Your task to perform on an android device: manage bookmarks in the chrome app Image 0: 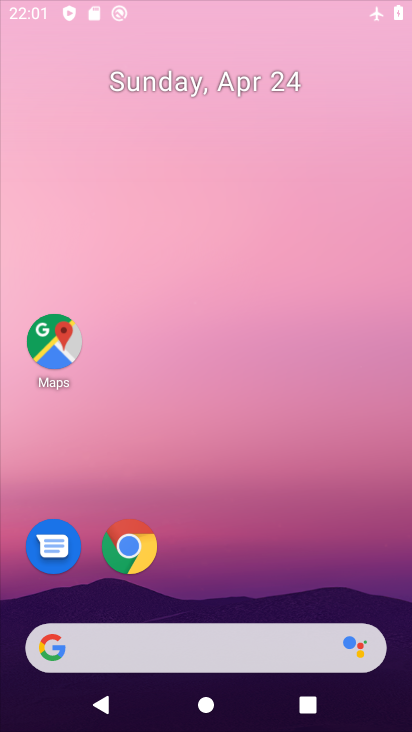
Step 0: drag from (236, 545) to (281, 188)
Your task to perform on an android device: manage bookmarks in the chrome app Image 1: 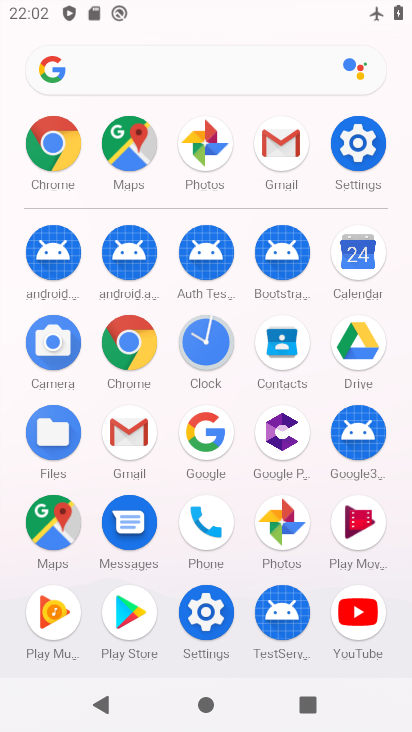
Step 1: click (360, 609)
Your task to perform on an android device: manage bookmarks in the chrome app Image 2: 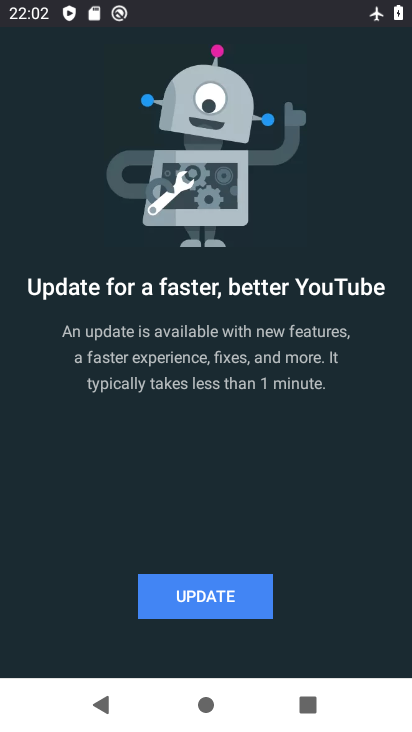
Step 2: press back button
Your task to perform on an android device: manage bookmarks in the chrome app Image 3: 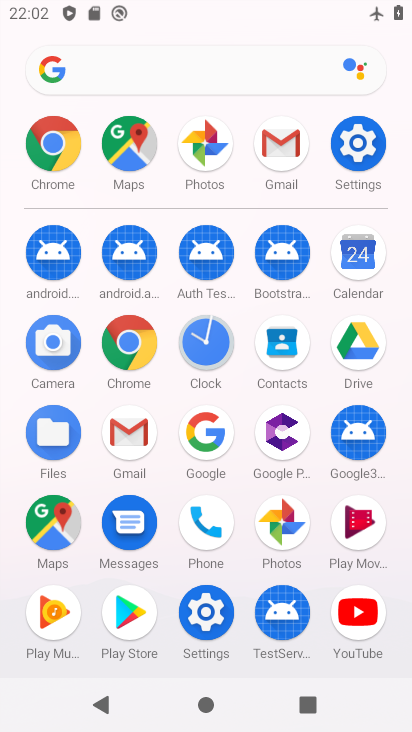
Step 3: click (129, 341)
Your task to perform on an android device: manage bookmarks in the chrome app Image 4: 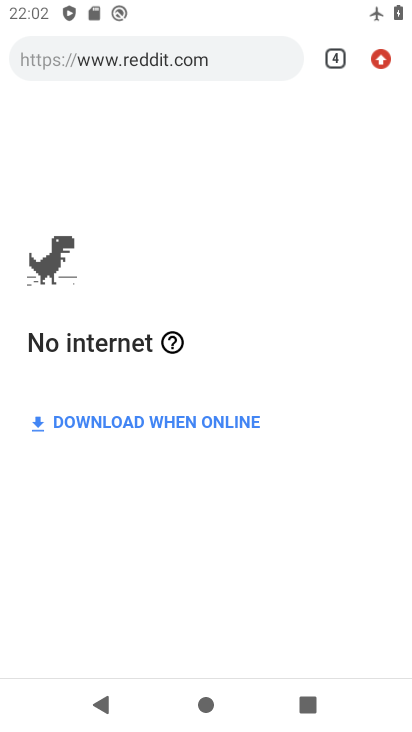
Step 4: click (389, 51)
Your task to perform on an android device: manage bookmarks in the chrome app Image 5: 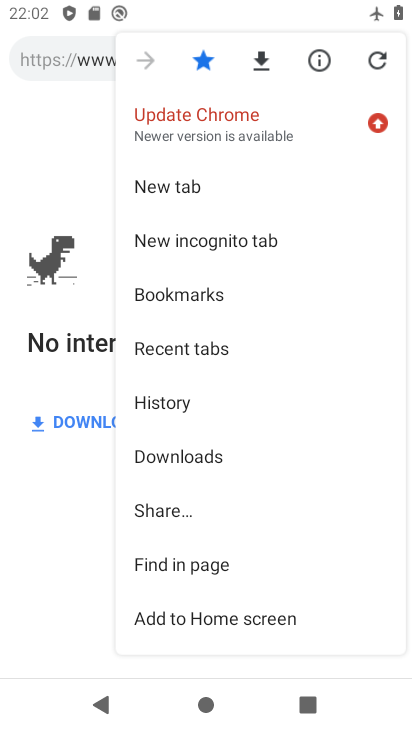
Step 5: click (212, 297)
Your task to perform on an android device: manage bookmarks in the chrome app Image 6: 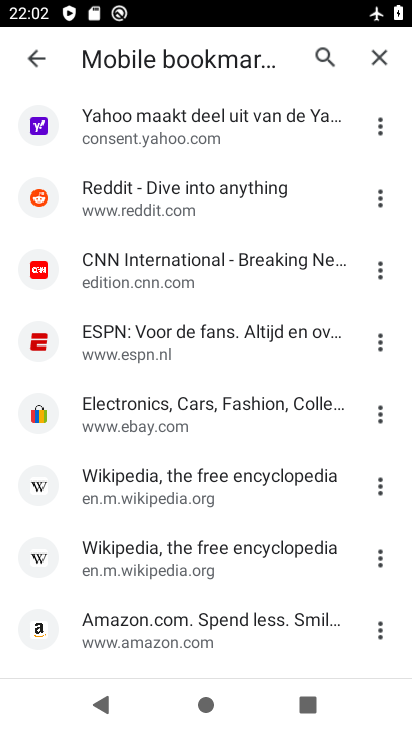
Step 6: click (86, 262)
Your task to perform on an android device: manage bookmarks in the chrome app Image 7: 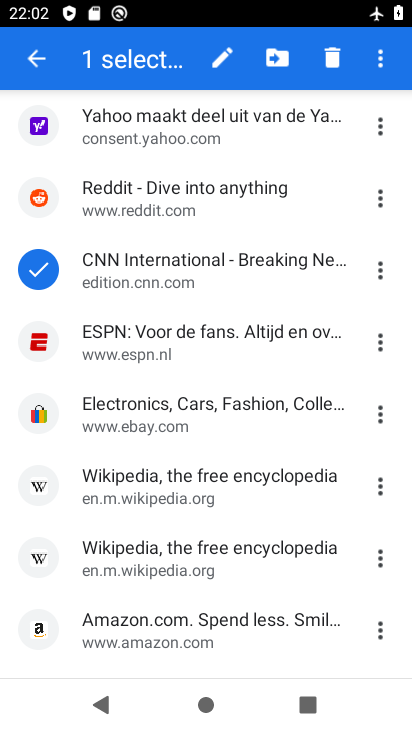
Step 7: click (266, 63)
Your task to perform on an android device: manage bookmarks in the chrome app Image 8: 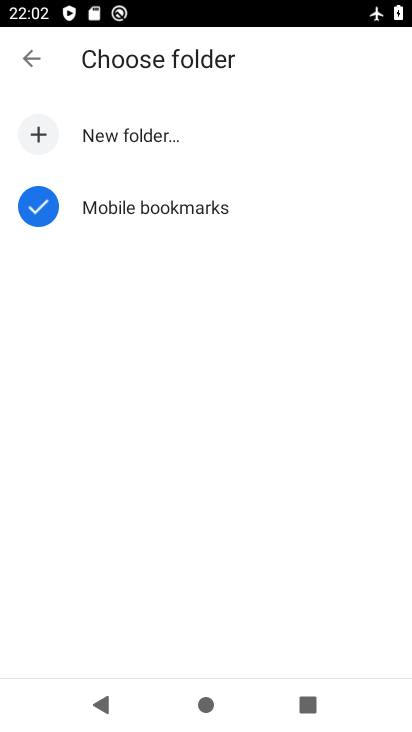
Step 8: click (145, 122)
Your task to perform on an android device: manage bookmarks in the chrome app Image 9: 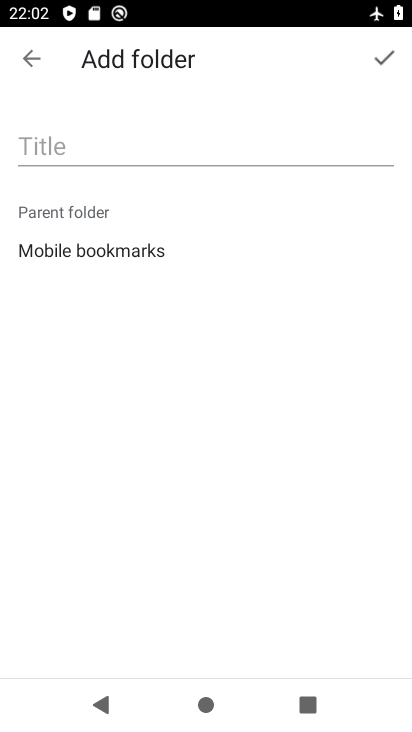
Step 9: click (252, 142)
Your task to perform on an android device: manage bookmarks in the chrome app Image 10: 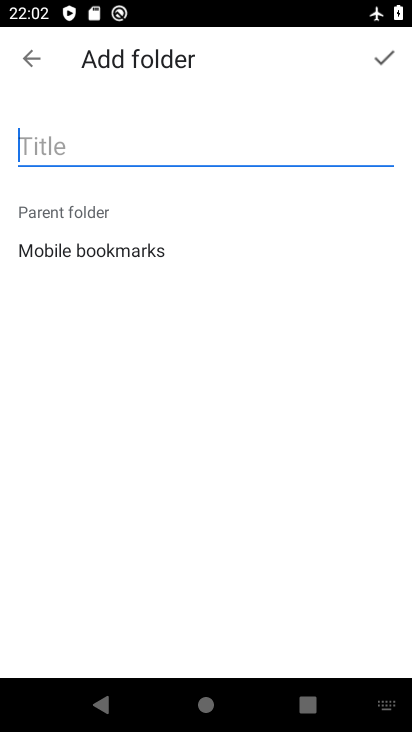
Step 10: type "jjj"
Your task to perform on an android device: manage bookmarks in the chrome app Image 11: 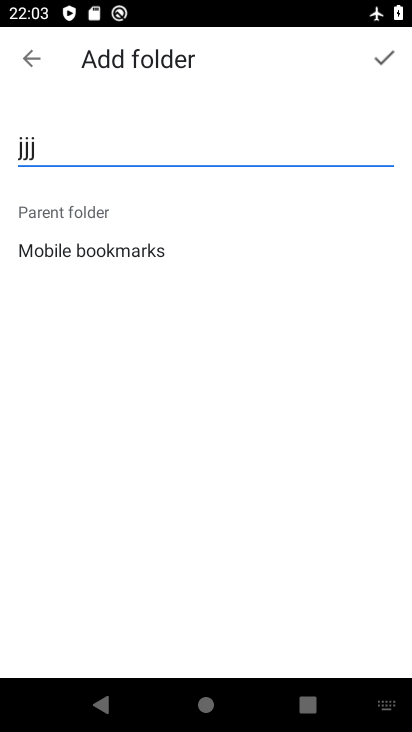
Step 11: click (383, 52)
Your task to perform on an android device: manage bookmarks in the chrome app Image 12: 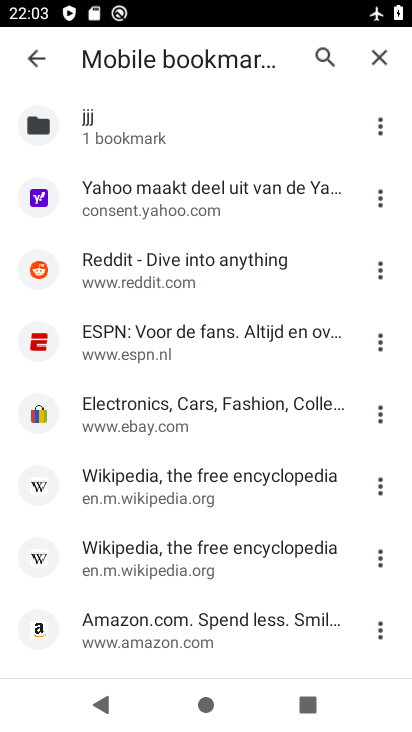
Step 12: task complete